Your task to perform on an android device: open a bookmark in the chrome app Image 0: 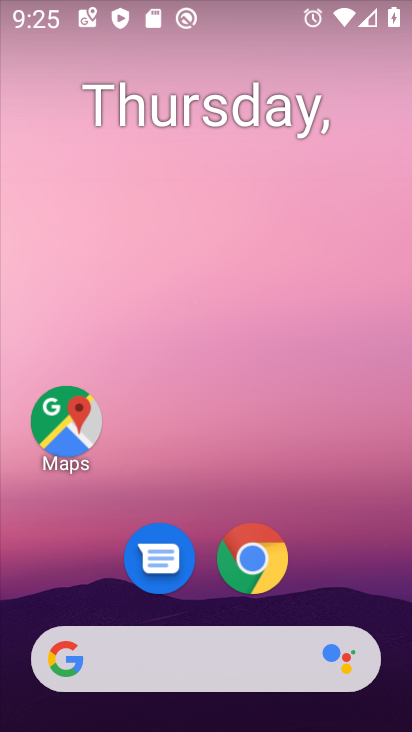
Step 0: click (255, 558)
Your task to perform on an android device: open a bookmark in the chrome app Image 1: 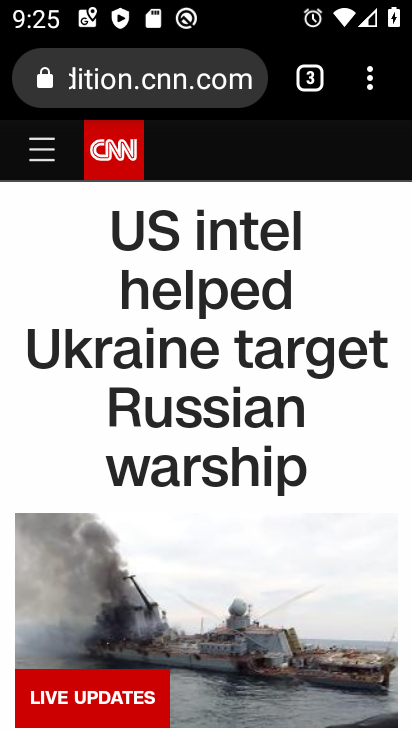
Step 1: click (362, 84)
Your task to perform on an android device: open a bookmark in the chrome app Image 2: 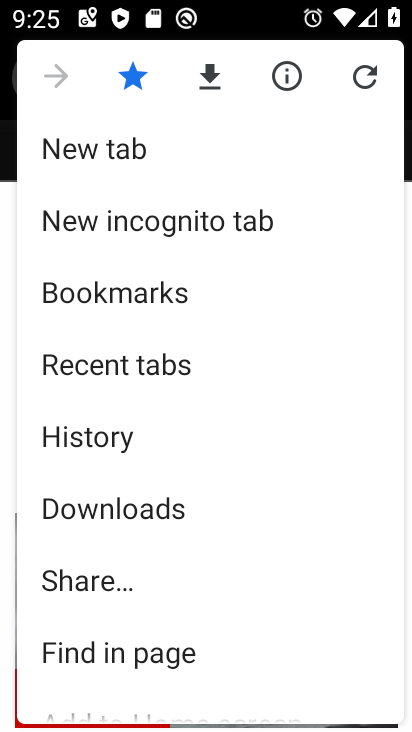
Step 2: click (74, 287)
Your task to perform on an android device: open a bookmark in the chrome app Image 3: 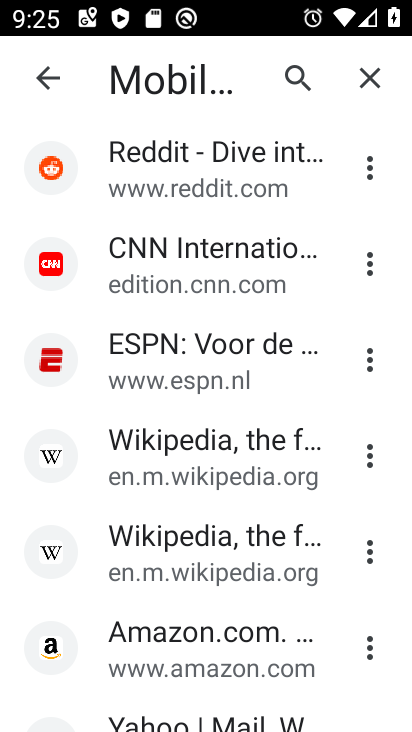
Step 3: click (159, 346)
Your task to perform on an android device: open a bookmark in the chrome app Image 4: 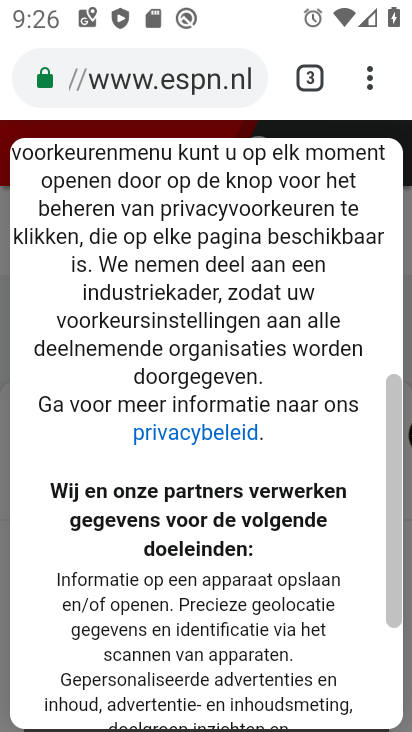
Step 4: task complete